Your task to perform on an android device: Turn off the flashlight Image 0: 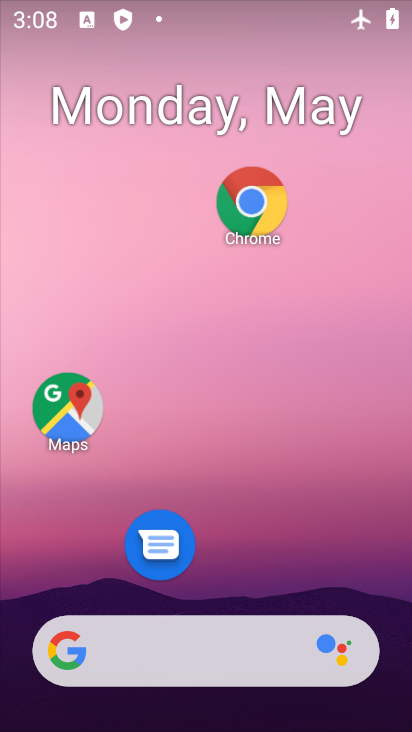
Step 0: drag from (186, 594) to (212, 258)
Your task to perform on an android device: Turn off the flashlight Image 1: 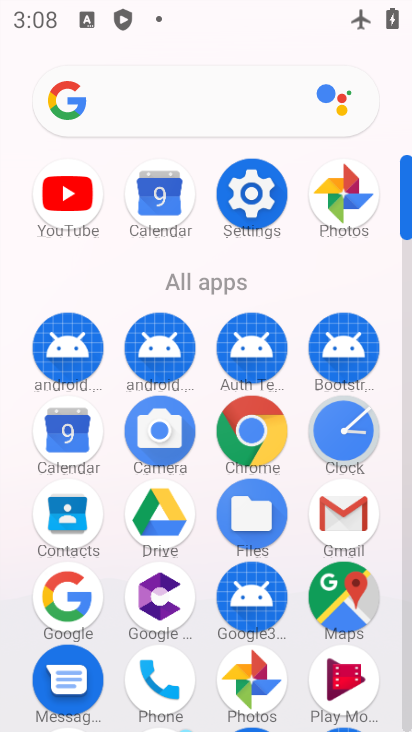
Step 1: click (262, 205)
Your task to perform on an android device: Turn off the flashlight Image 2: 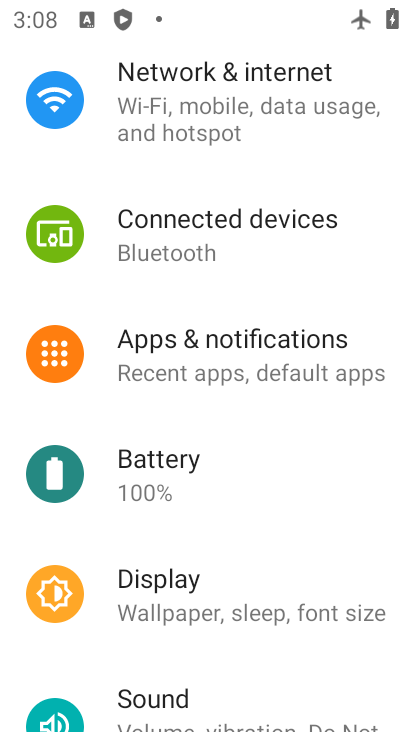
Step 2: drag from (190, 192) to (184, 459)
Your task to perform on an android device: Turn off the flashlight Image 3: 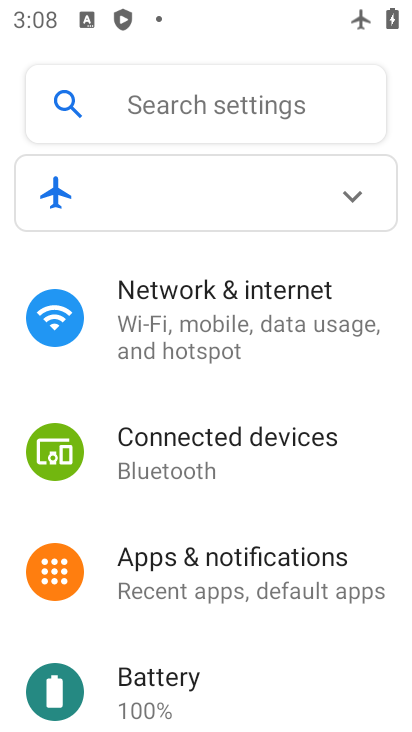
Step 3: click (143, 597)
Your task to perform on an android device: Turn off the flashlight Image 4: 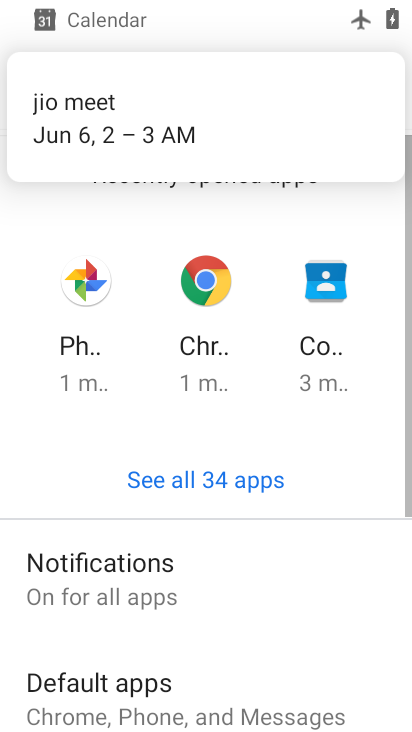
Step 4: task complete